Your task to perform on an android device: turn off data saver in the chrome app Image 0: 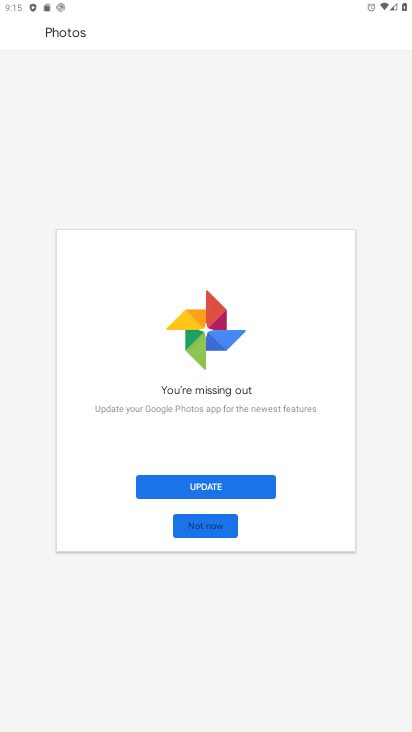
Step 0: press home button
Your task to perform on an android device: turn off data saver in the chrome app Image 1: 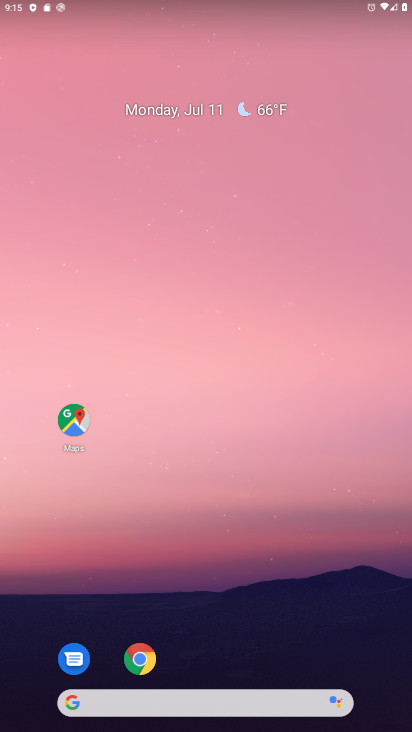
Step 1: drag from (349, 625) to (354, 193)
Your task to perform on an android device: turn off data saver in the chrome app Image 2: 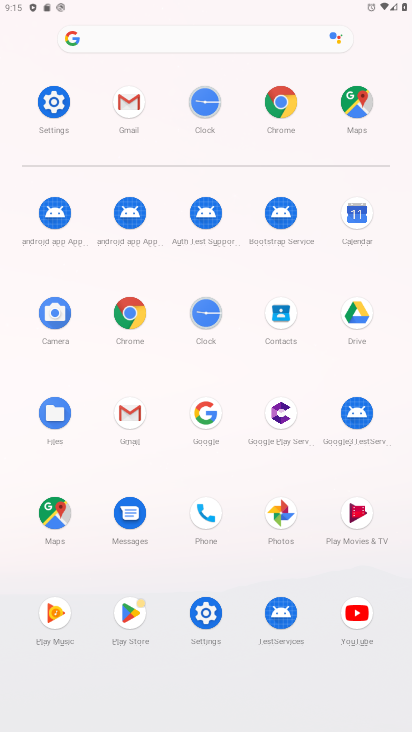
Step 2: click (134, 318)
Your task to perform on an android device: turn off data saver in the chrome app Image 3: 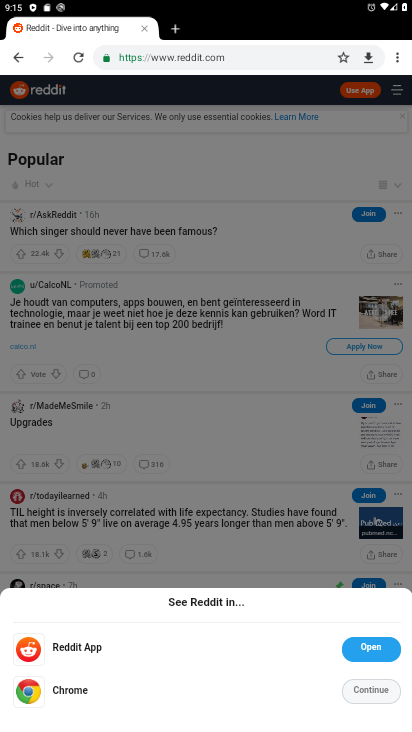
Step 3: click (397, 55)
Your task to perform on an android device: turn off data saver in the chrome app Image 4: 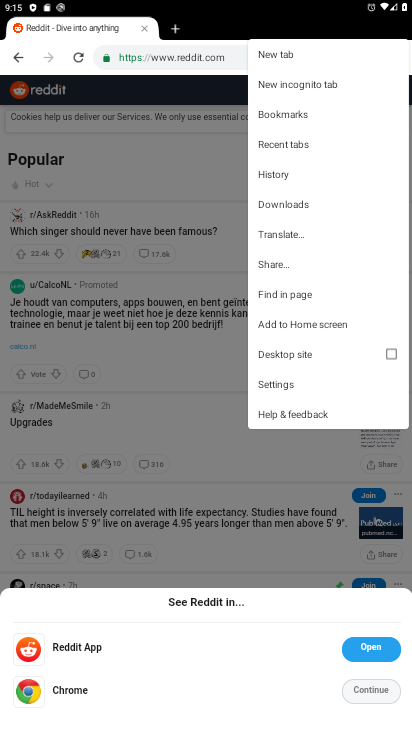
Step 4: click (288, 383)
Your task to perform on an android device: turn off data saver in the chrome app Image 5: 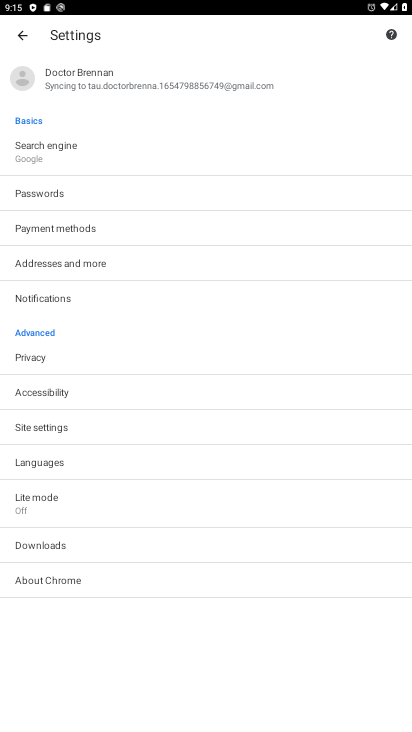
Step 5: drag from (292, 456) to (320, 333)
Your task to perform on an android device: turn off data saver in the chrome app Image 6: 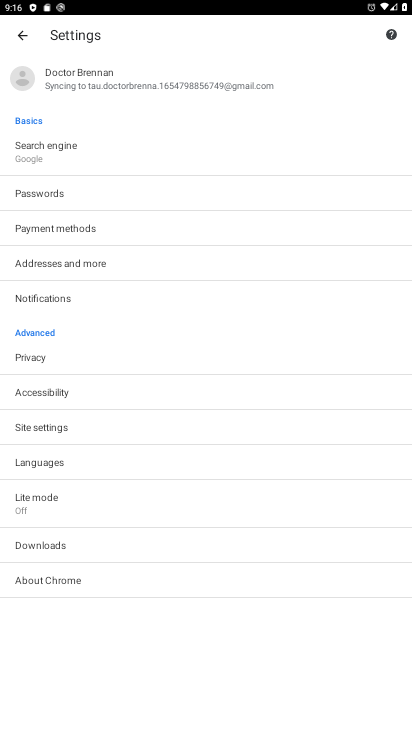
Step 6: click (189, 507)
Your task to perform on an android device: turn off data saver in the chrome app Image 7: 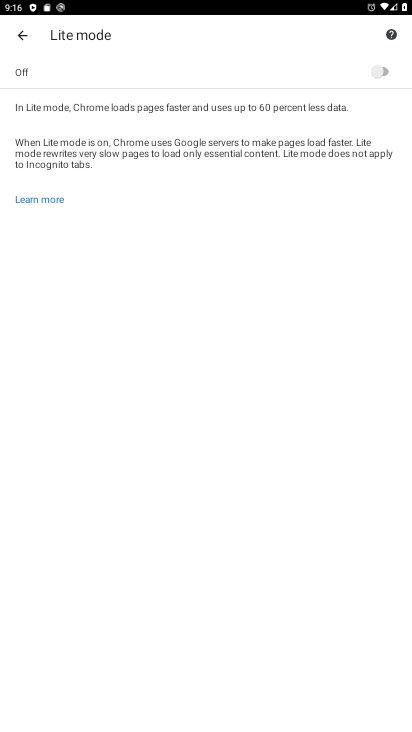
Step 7: task complete